Your task to perform on an android device: toggle pop-ups in chrome Image 0: 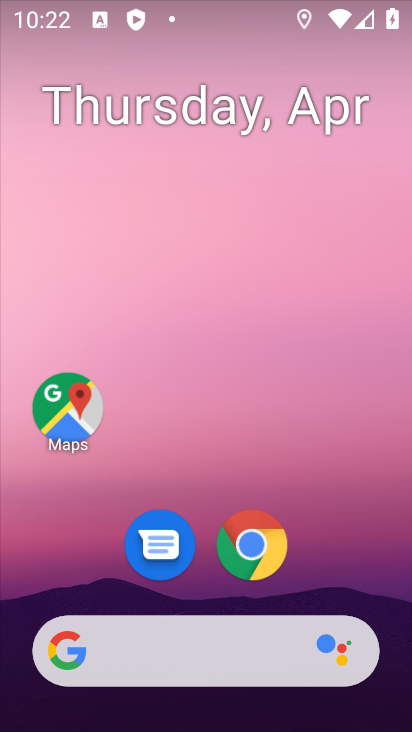
Step 0: click (274, 552)
Your task to perform on an android device: toggle pop-ups in chrome Image 1: 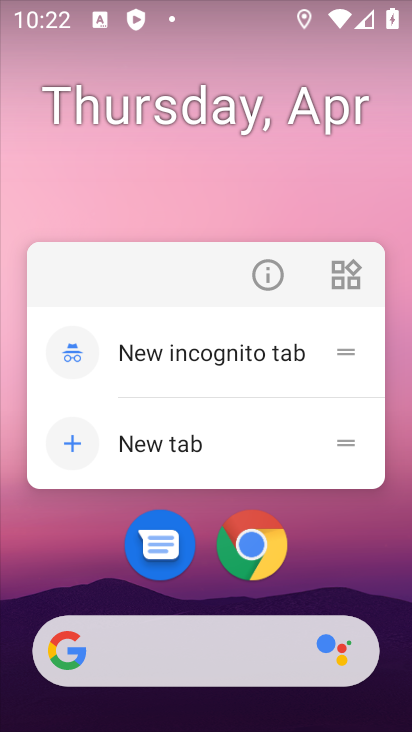
Step 1: click (267, 288)
Your task to perform on an android device: toggle pop-ups in chrome Image 2: 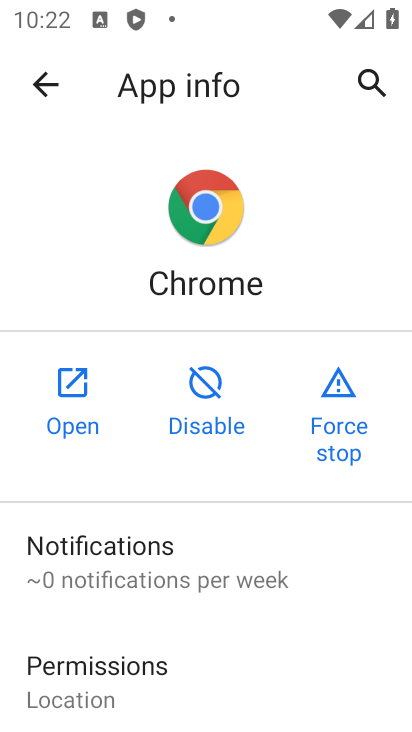
Step 2: click (79, 384)
Your task to perform on an android device: toggle pop-ups in chrome Image 3: 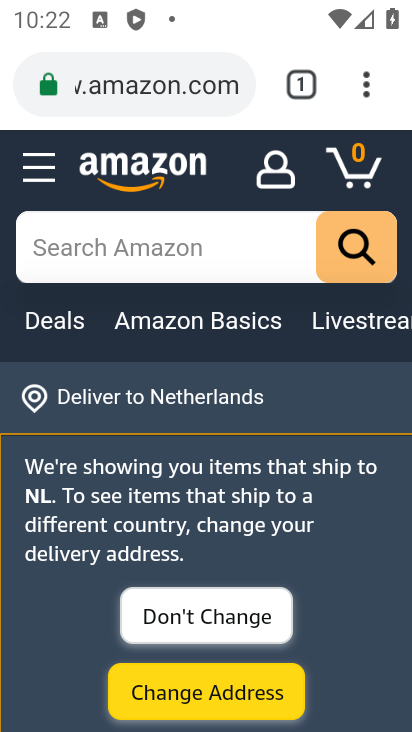
Step 3: click (369, 92)
Your task to perform on an android device: toggle pop-ups in chrome Image 4: 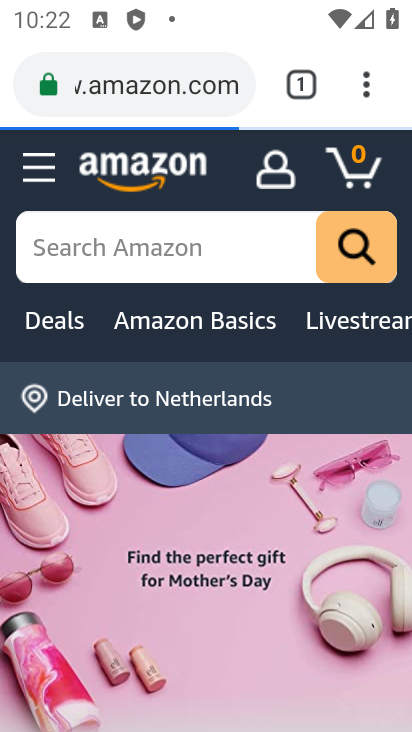
Step 4: click (364, 105)
Your task to perform on an android device: toggle pop-ups in chrome Image 5: 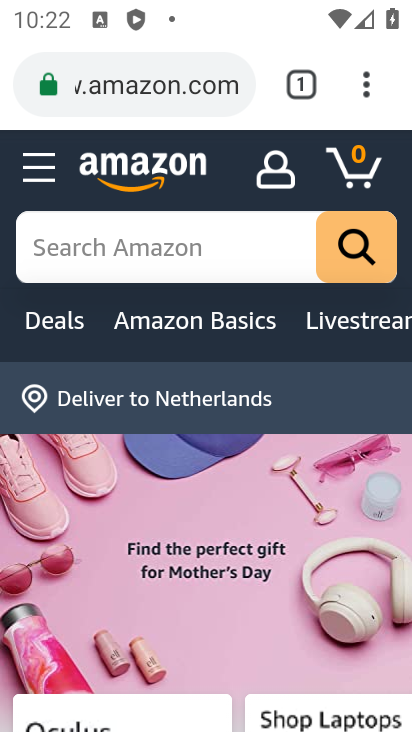
Step 5: click (367, 87)
Your task to perform on an android device: toggle pop-ups in chrome Image 6: 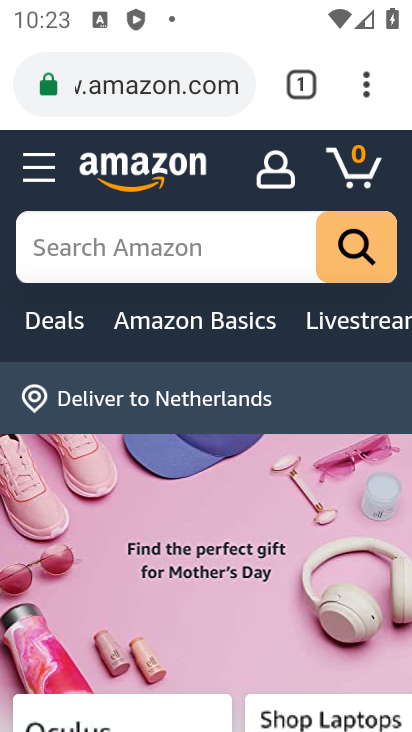
Step 6: click (362, 419)
Your task to perform on an android device: toggle pop-ups in chrome Image 7: 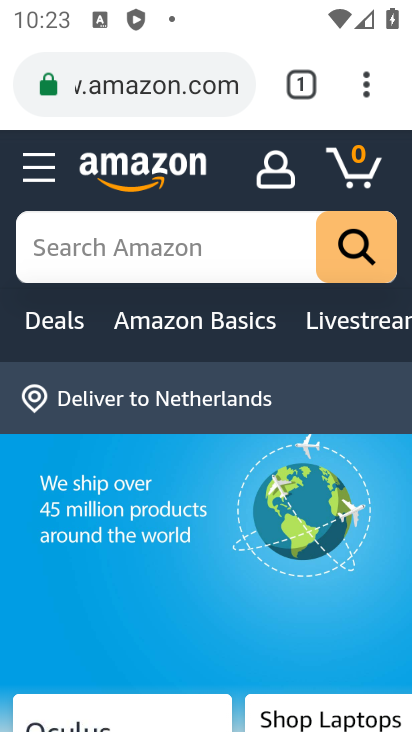
Step 7: click (363, 81)
Your task to perform on an android device: toggle pop-ups in chrome Image 8: 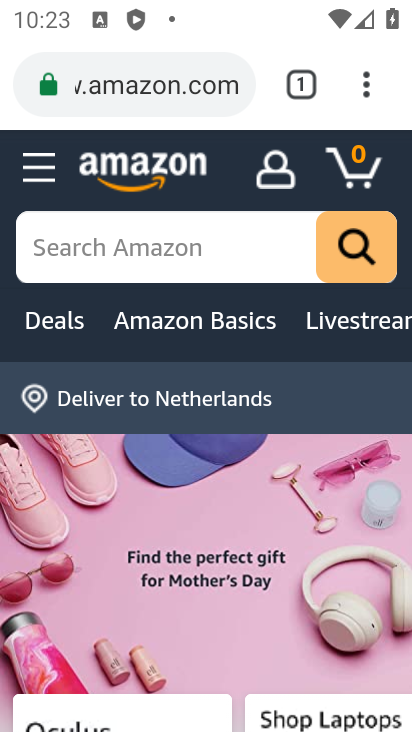
Step 8: click (365, 90)
Your task to perform on an android device: toggle pop-ups in chrome Image 9: 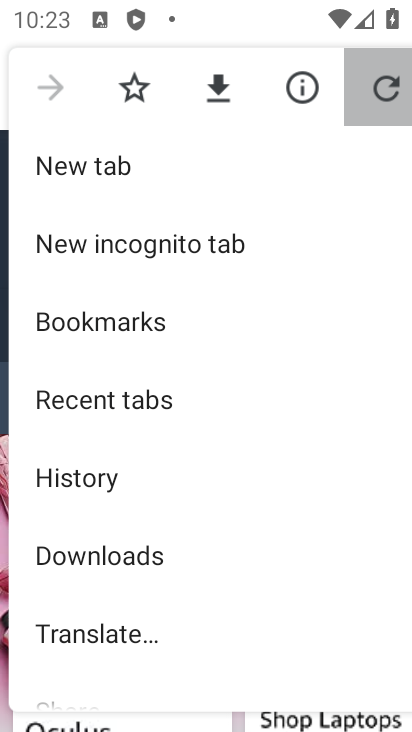
Step 9: drag from (72, 459) to (208, 179)
Your task to perform on an android device: toggle pop-ups in chrome Image 10: 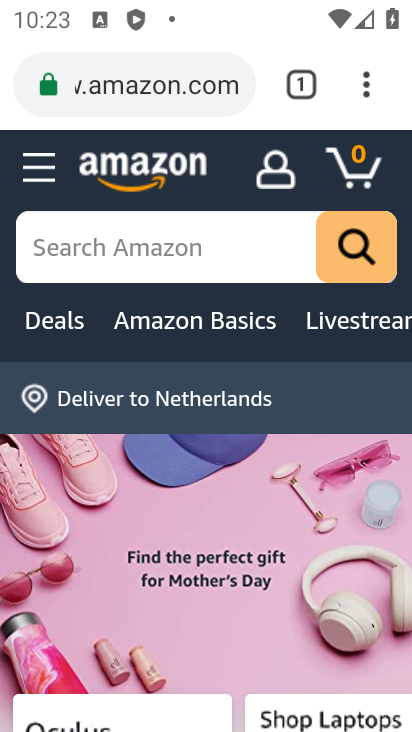
Step 10: click (367, 78)
Your task to perform on an android device: toggle pop-ups in chrome Image 11: 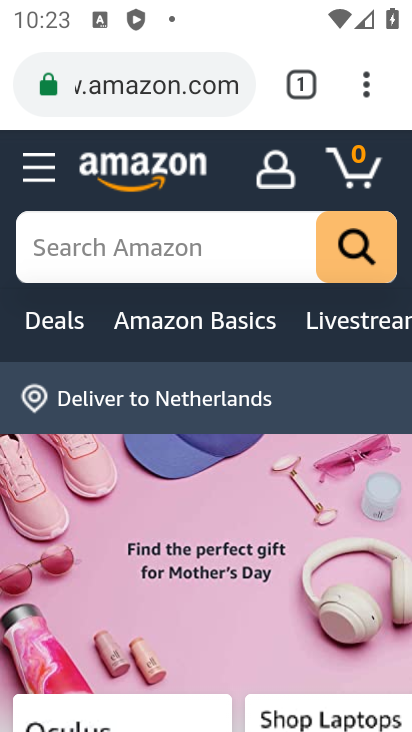
Step 11: click (353, 89)
Your task to perform on an android device: toggle pop-ups in chrome Image 12: 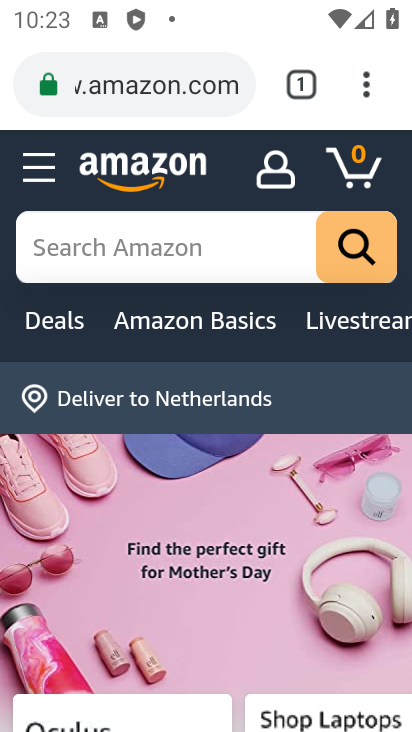
Step 12: click (355, 80)
Your task to perform on an android device: toggle pop-ups in chrome Image 13: 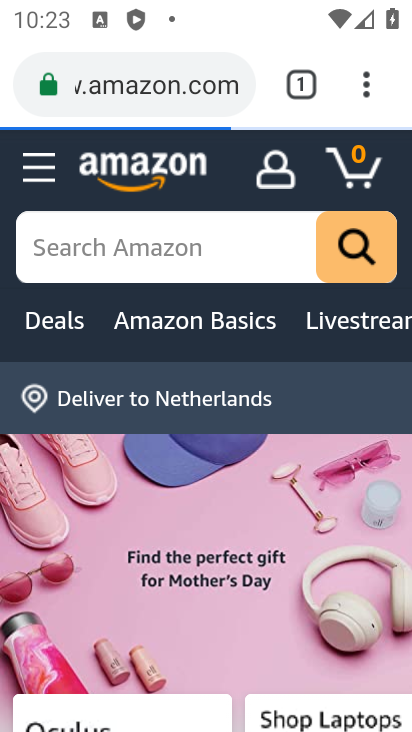
Step 13: click (355, 80)
Your task to perform on an android device: toggle pop-ups in chrome Image 14: 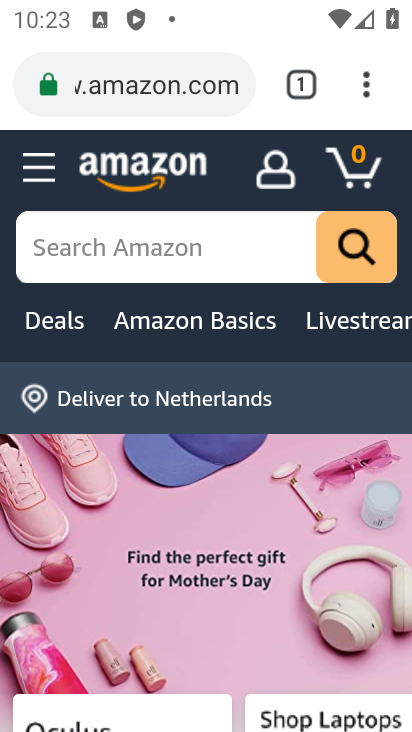
Step 14: click (362, 80)
Your task to perform on an android device: toggle pop-ups in chrome Image 15: 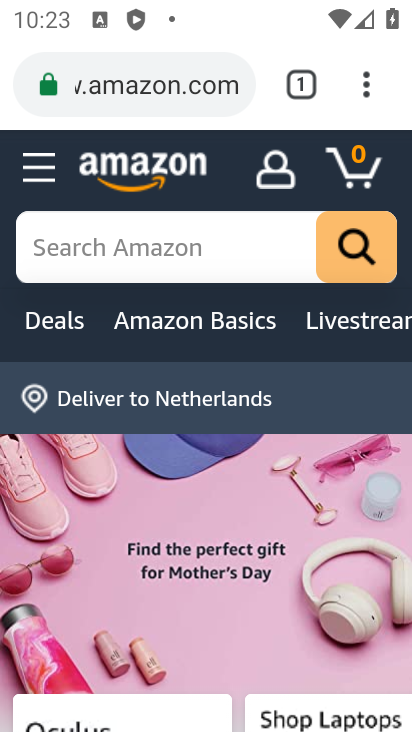
Step 15: click (370, 94)
Your task to perform on an android device: toggle pop-ups in chrome Image 16: 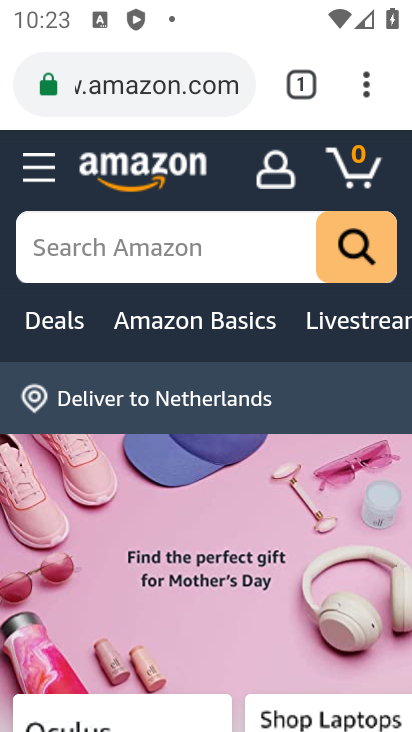
Step 16: click (347, 95)
Your task to perform on an android device: toggle pop-ups in chrome Image 17: 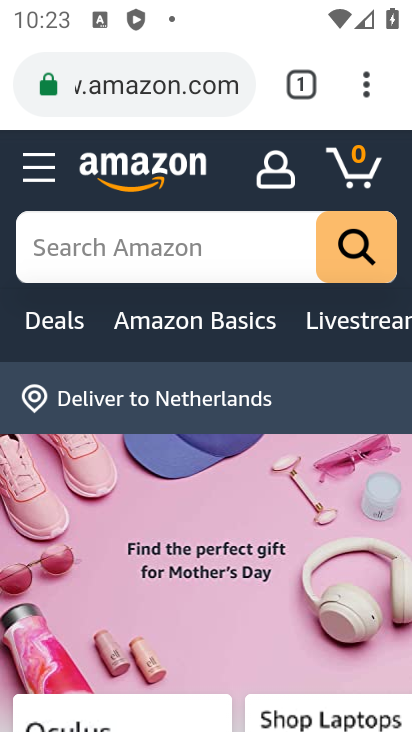
Step 17: click (353, 91)
Your task to perform on an android device: toggle pop-ups in chrome Image 18: 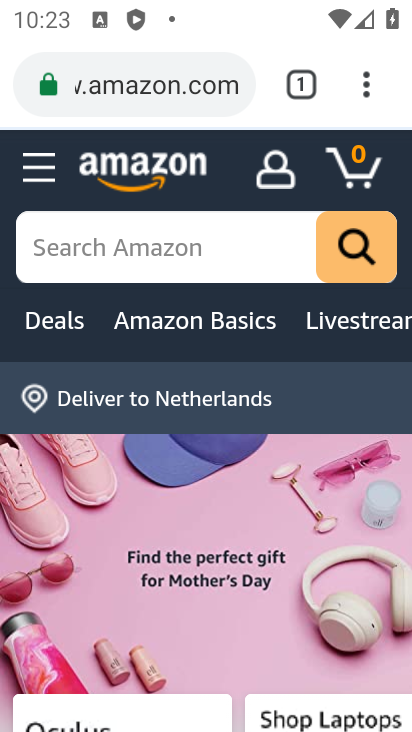
Step 18: click (356, 91)
Your task to perform on an android device: toggle pop-ups in chrome Image 19: 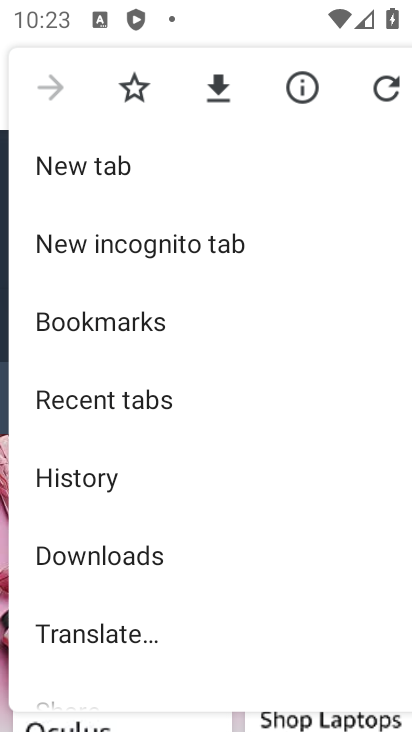
Step 19: drag from (120, 640) to (225, 319)
Your task to perform on an android device: toggle pop-ups in chrome Image 20: 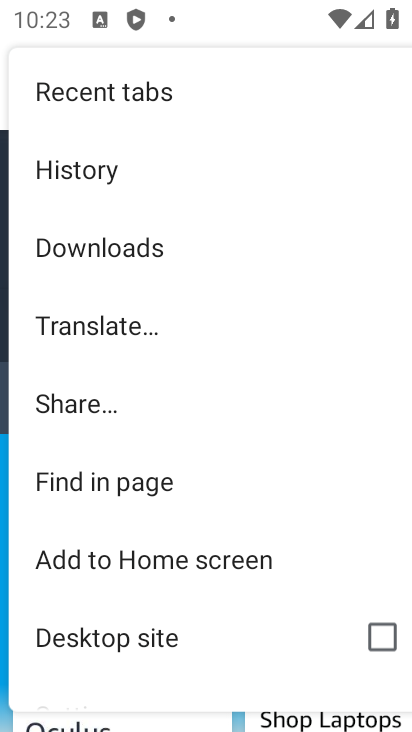
Step 20: drag from (120, 624) to (266, 229)
Your task to perform on an android device: toggle pop-ups in chrome Image 21: 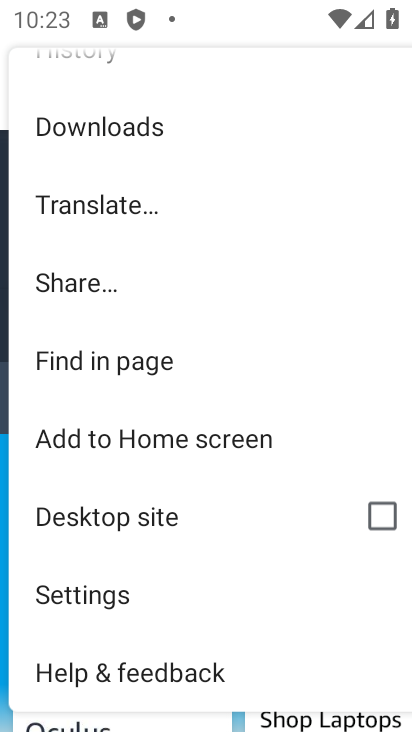
Step 21: click (110, 602)
Your task to perform on an android device: toggle pop-ups in chrome Image 22: 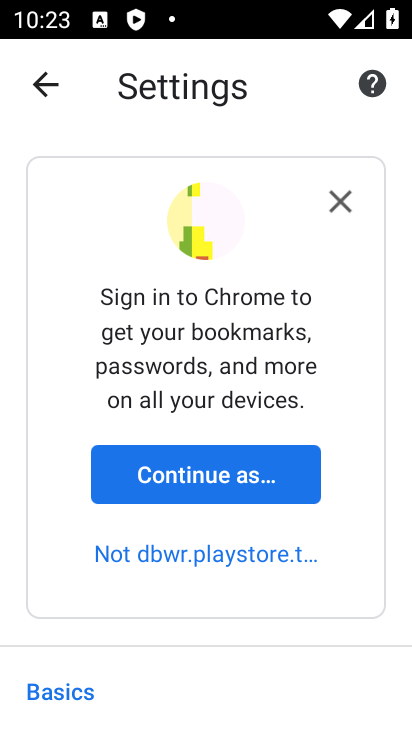
Step 22: click (346, 201)
Your task to perform on an android device: toggle pop-ups in chrome Image 23: 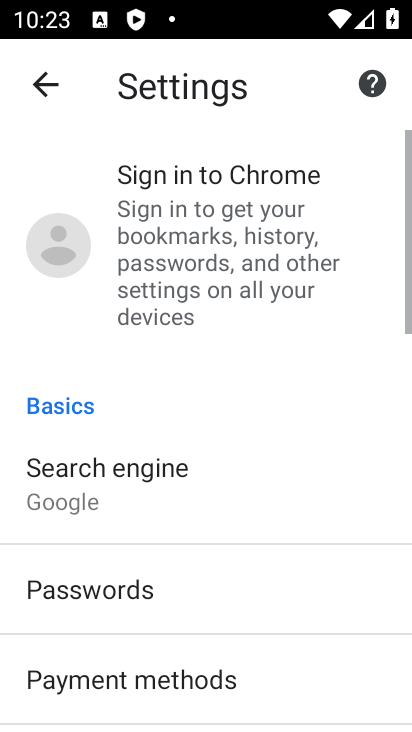
Step 23: drag from (177, 638) to (298, 348)
Your task to perform on an android device: toggle pop-ups in chrome Image 24: 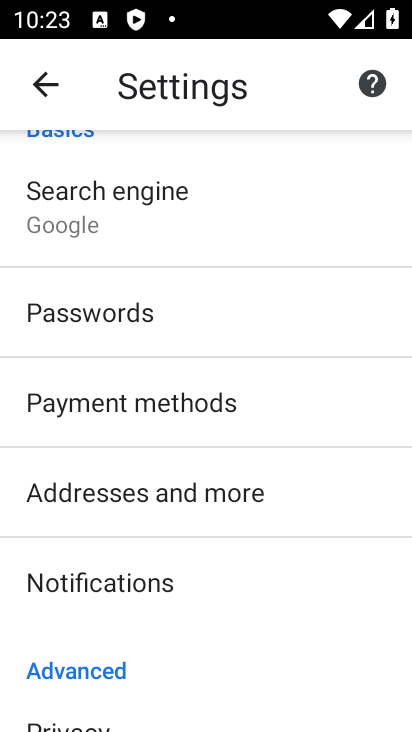
Step 24: drag from (122, 644) to (263, 311)
Your task to perform on an android device: toggle pop-ups in chrome Image 25: 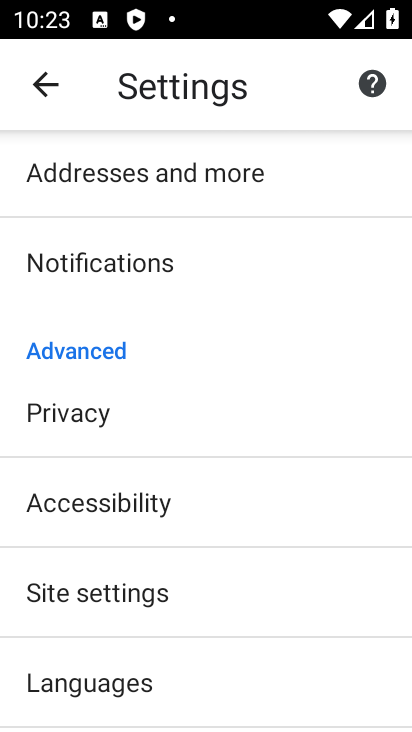
Step 25: click (93, 592)
Your task to perform on an android device: toggle pop-ups in chrome Image 26: 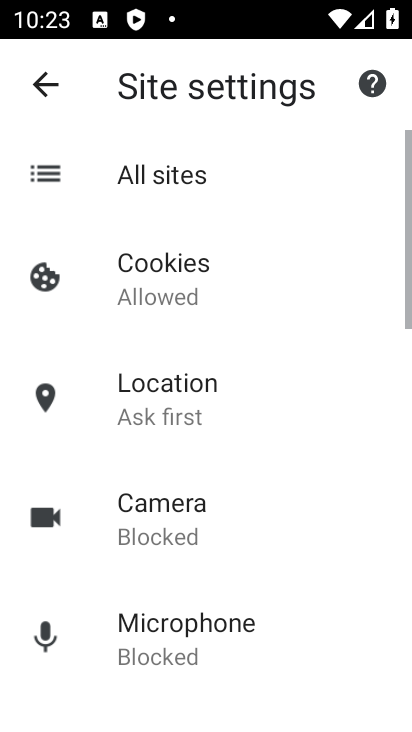
Step 26: drag from (149, 652) to (275, 344)
Your task to perform on an android device: toggle pop-ups in chrome Image 27: 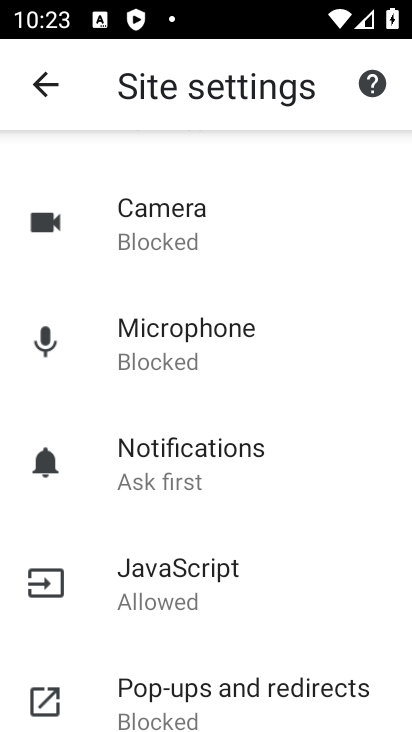
Step 27: click (196, 688)
Your task to perform on an android device: toggle pop-ups in chrome Image 28: 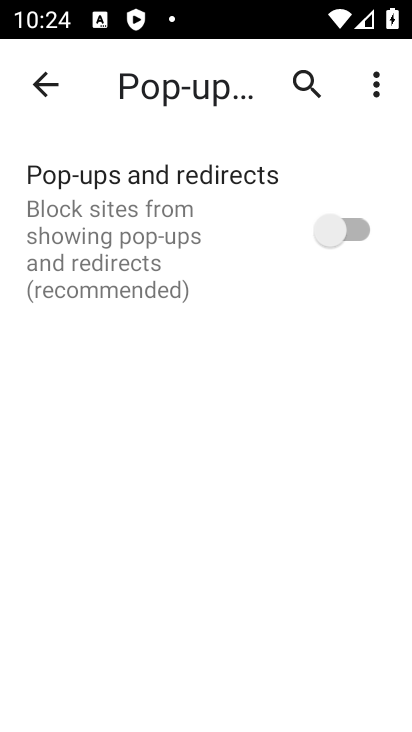
Step 28: click (336, 231)
Your task to perform on an android device: toggle pop-ups in chrome Image 29: 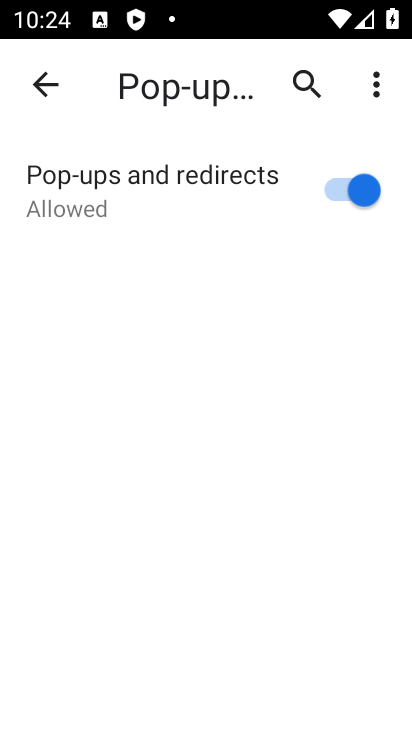
Step 29: task complete